Your task to perform on an android device: visit the assistant section in the google photos Image 0: 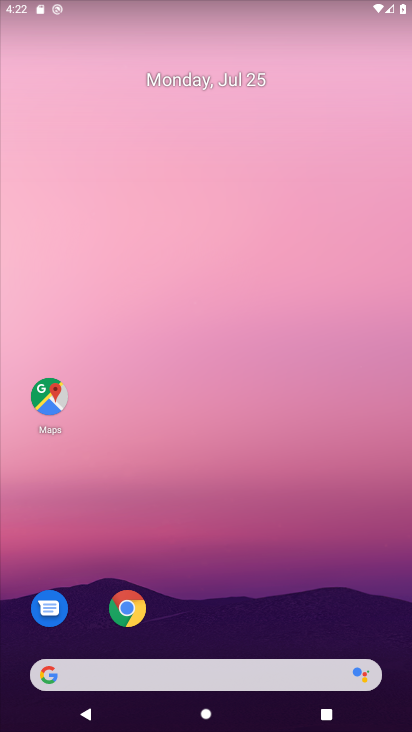
Step 0: drag from (251, 550) to (256, 69)
Your task to perform on an android device: visit the assistant section in the google photos Image 1: 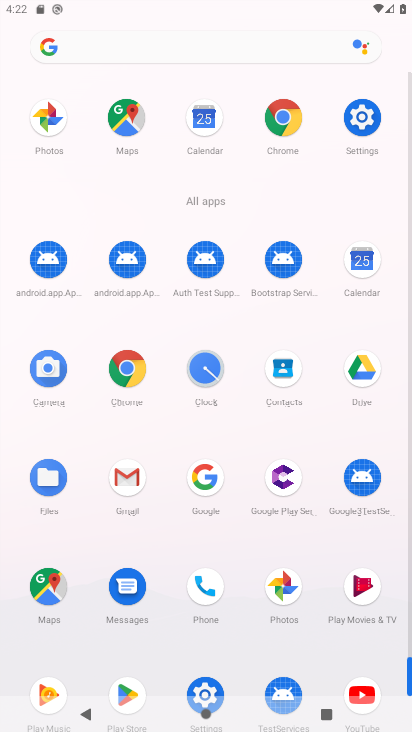
Step 1: click (275, 604)
Your task to perform on an android device: visit the assistant section in the google photos Image 2: 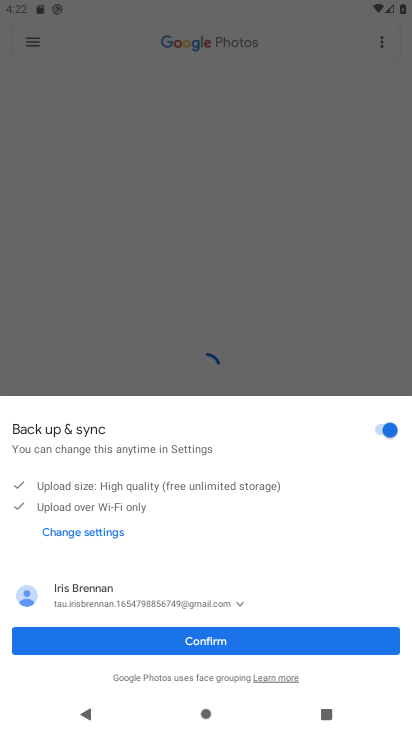
Step 2: click (238, 643)
Your task to perform on an android device: visit the assistant section in the google photos Image 3: 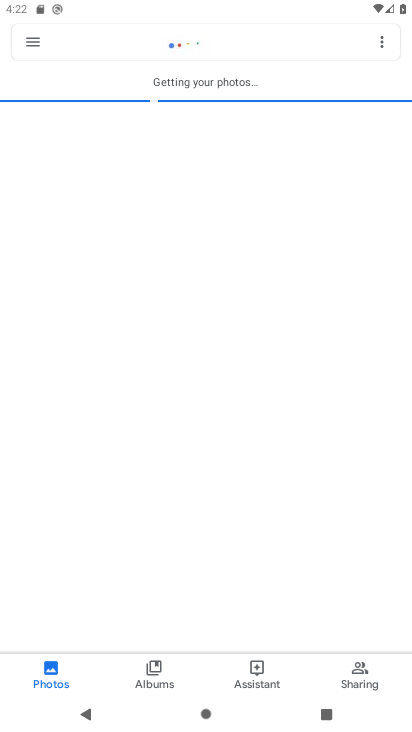
Step 3: click (263, 675)
Your task to perform on an android device: visit the assistant section in the google photos Image 4: 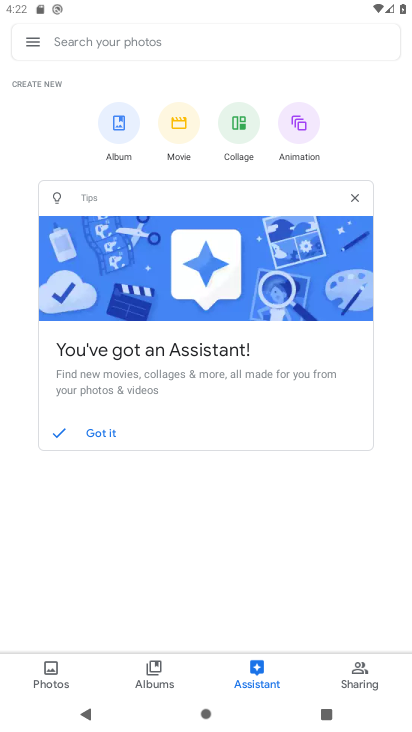
Step 4: task complete